Your task to perform on an android device: Is it going to rain tomorrow? Image 0: 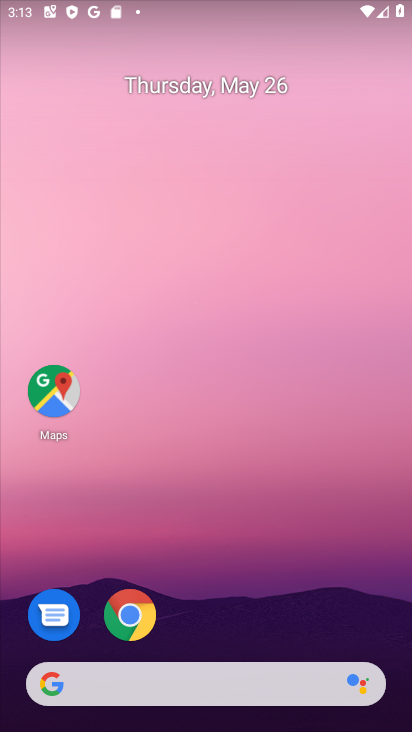
Step 0: click (250, 687)
Your task to perform on an android device: Is it going to rain tomorrow? Image 1: 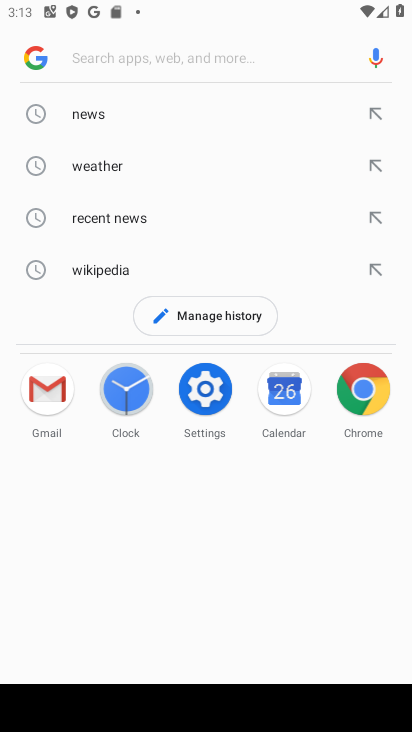
Step 1: click (109, 165)
Your task to perform on an android device: Is it going to rain tomorrow? Image 2: 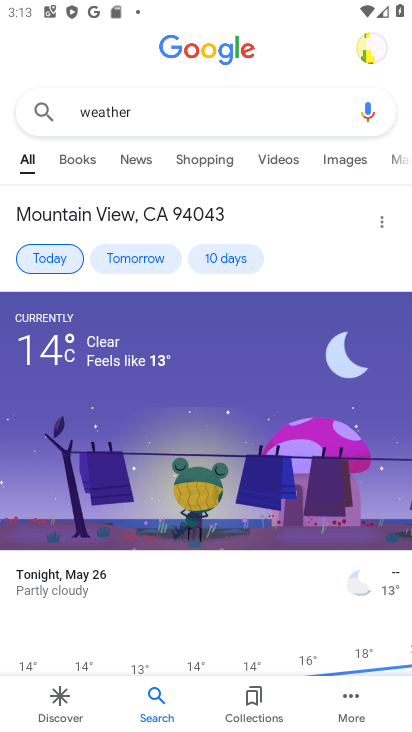
Step 2: click (144, 265)
Your task to perform on an android device: Is it going to rain tomorrow? Image 3: 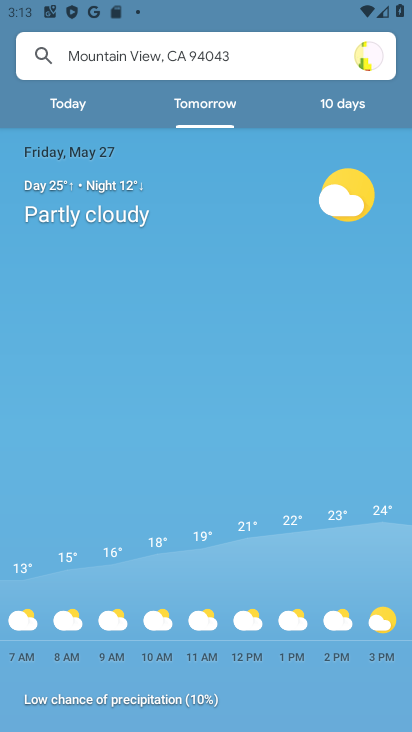
Step 3: task complete